Your task to perform on an android device: Open settings Image 0: 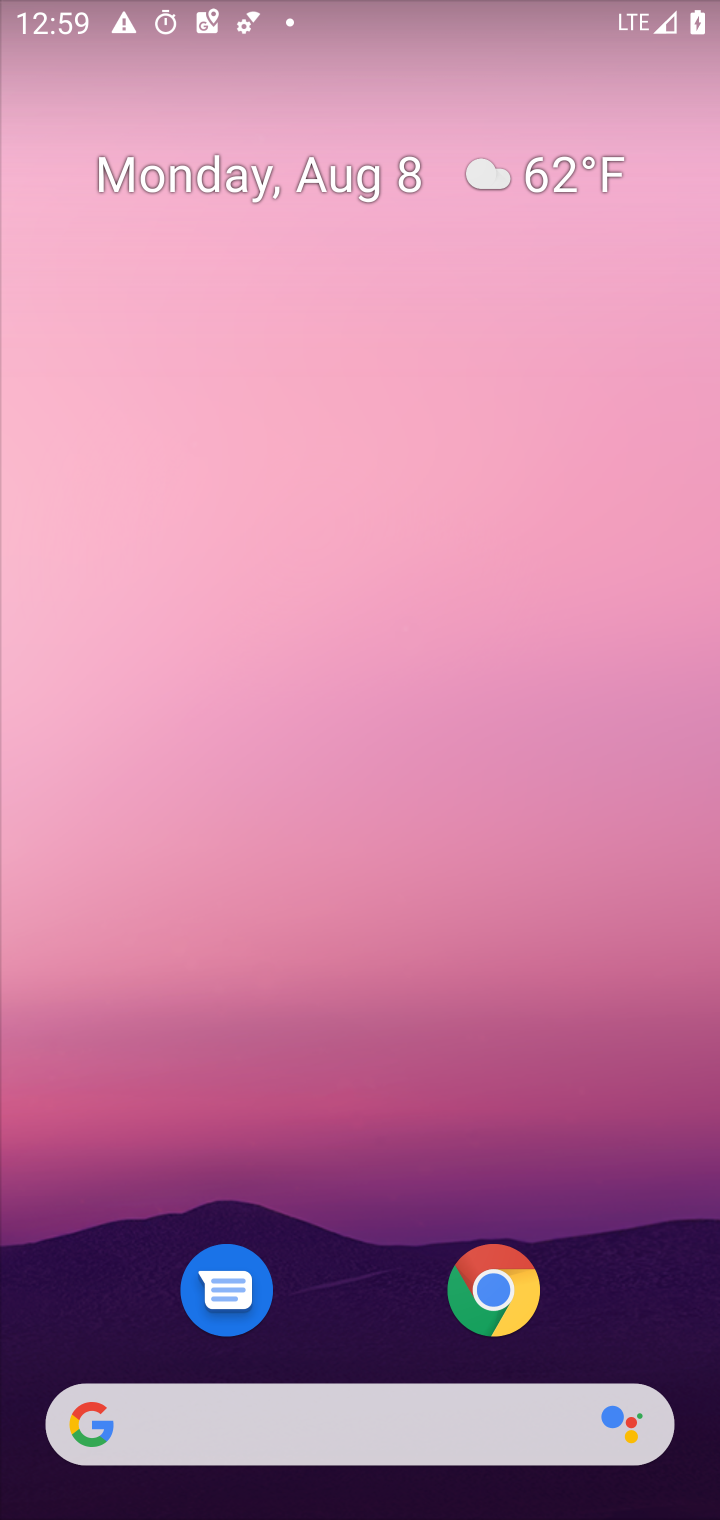
Step 0: drag from (352, 1237) to (392, 921)
Your task to perform on an android device: Open settings Image 1: 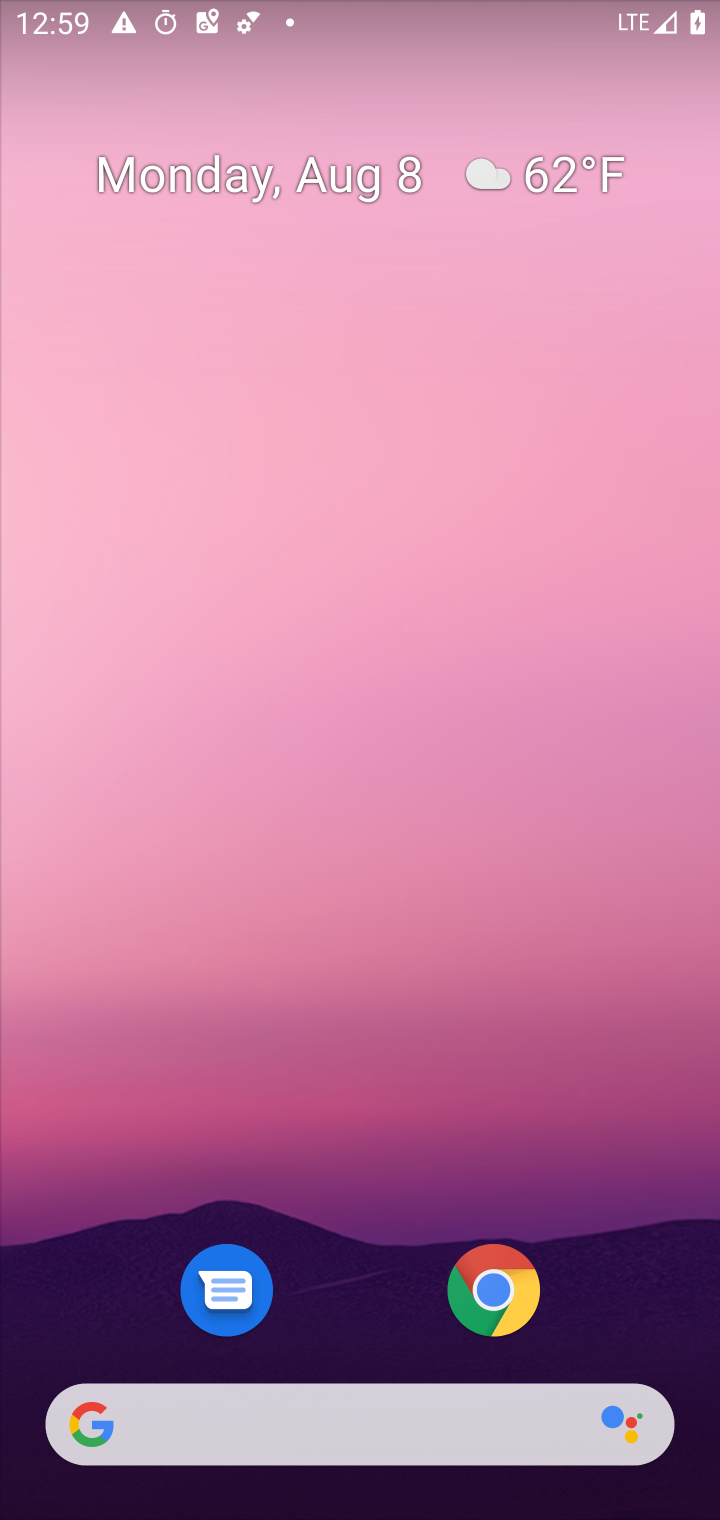
Step 1: drag from (373, 1334) to (393, 851)
Your task to perform on an android device: Open settings Image 2: 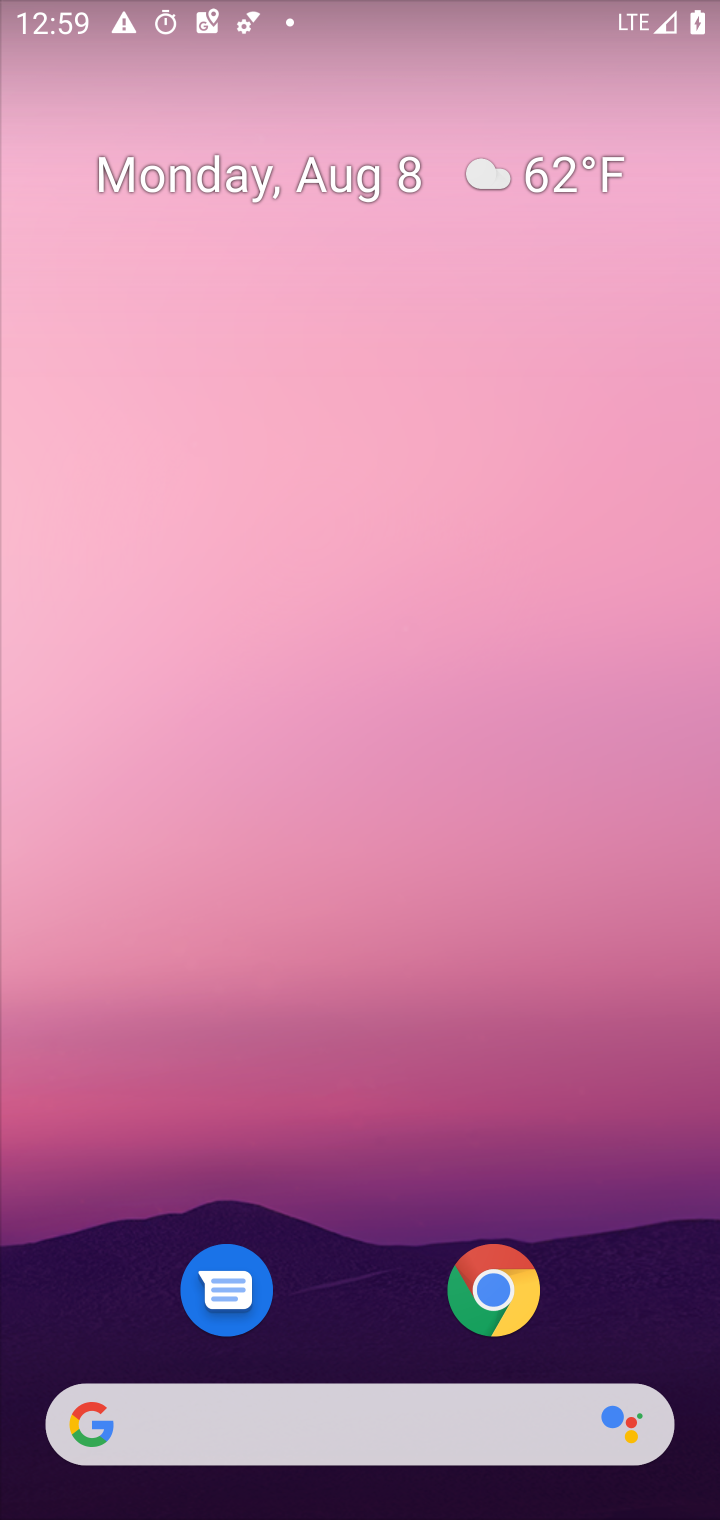
Step 2: drag from (384, 1243) to (384, 688)
Your task to perform on an android device: Open settings Image 3: 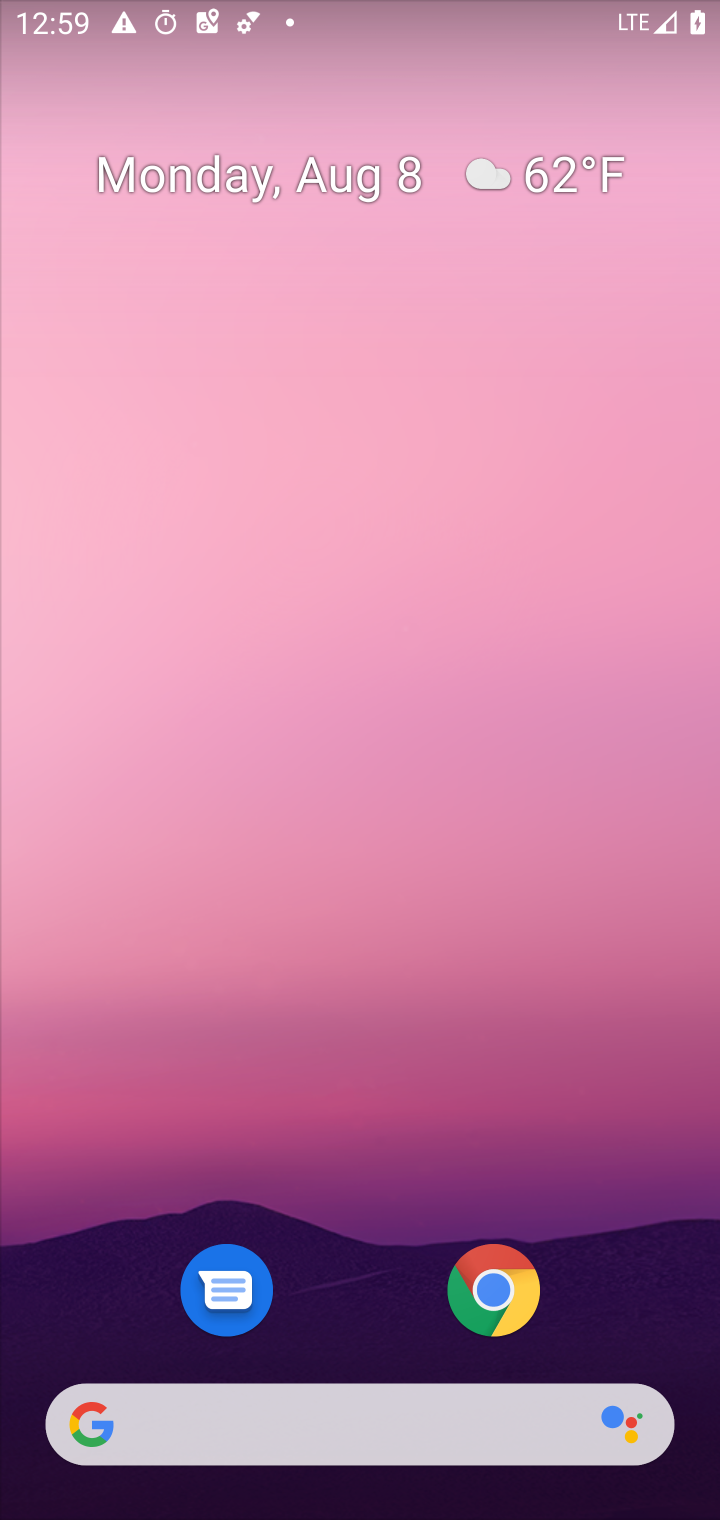
Step 3: drag from (397, 1284) to (415, 265)
Your task to perform on an android device: Open settings Image 4: 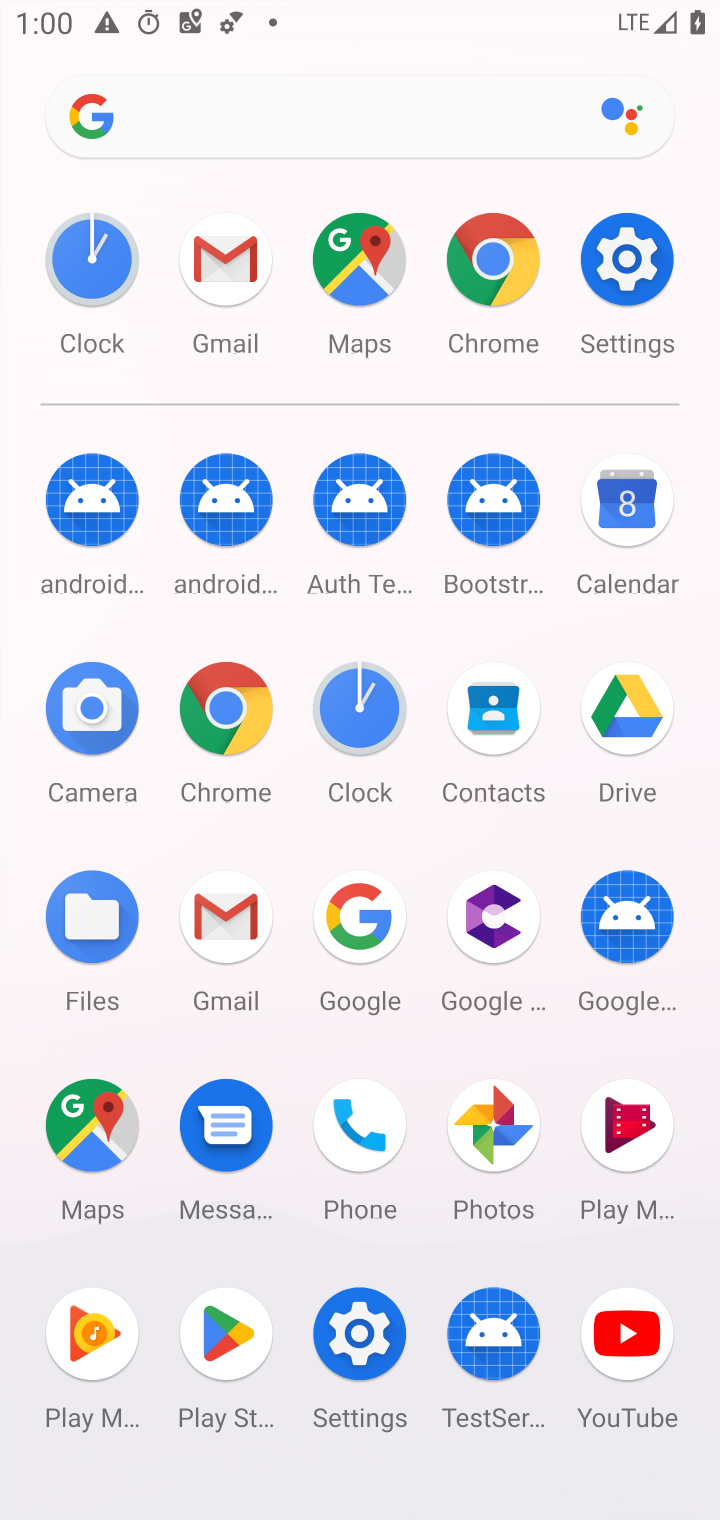
Step 4: click (642, 286)
Your task to perform on an android device: Open settings Image 5: 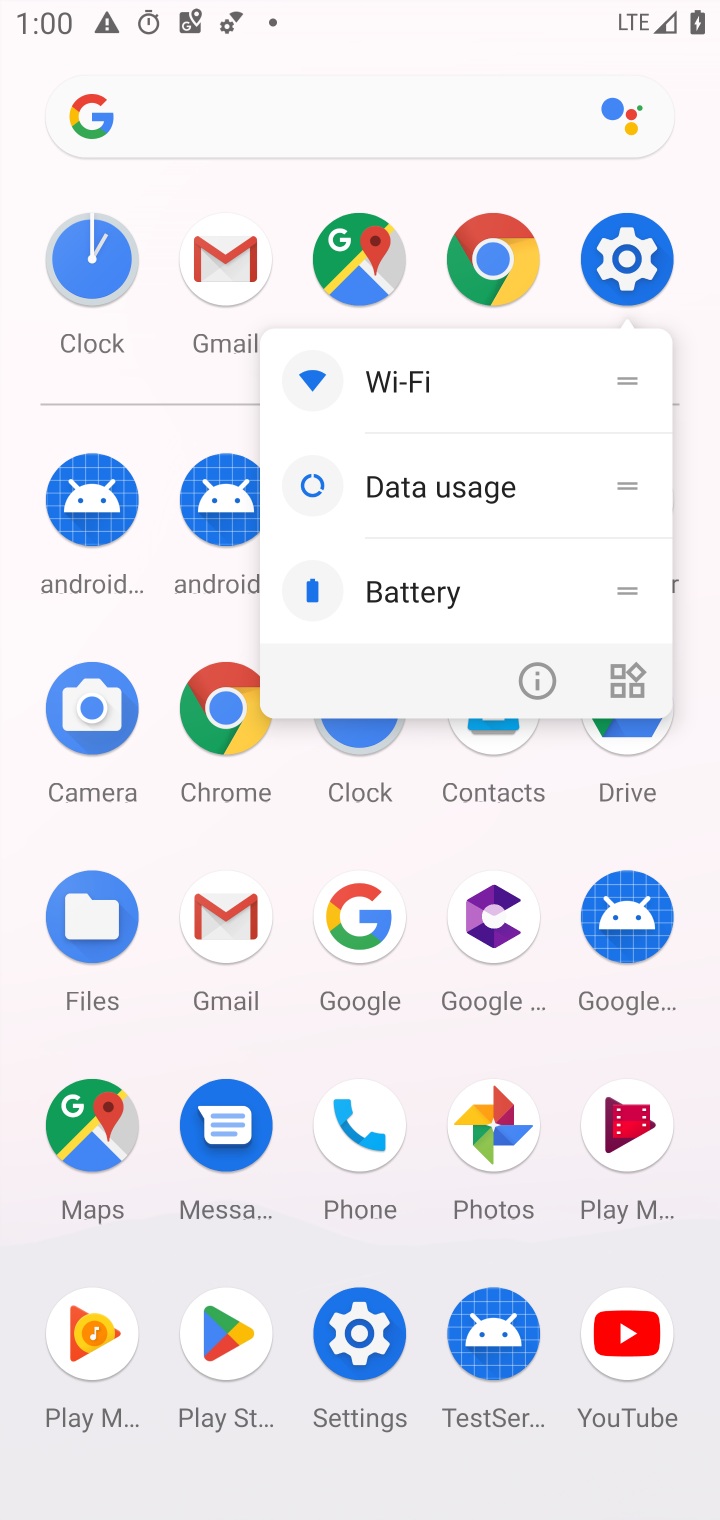
Step 5: click (647, 263)
Your task to perform on an android device: Open settings Image 6: 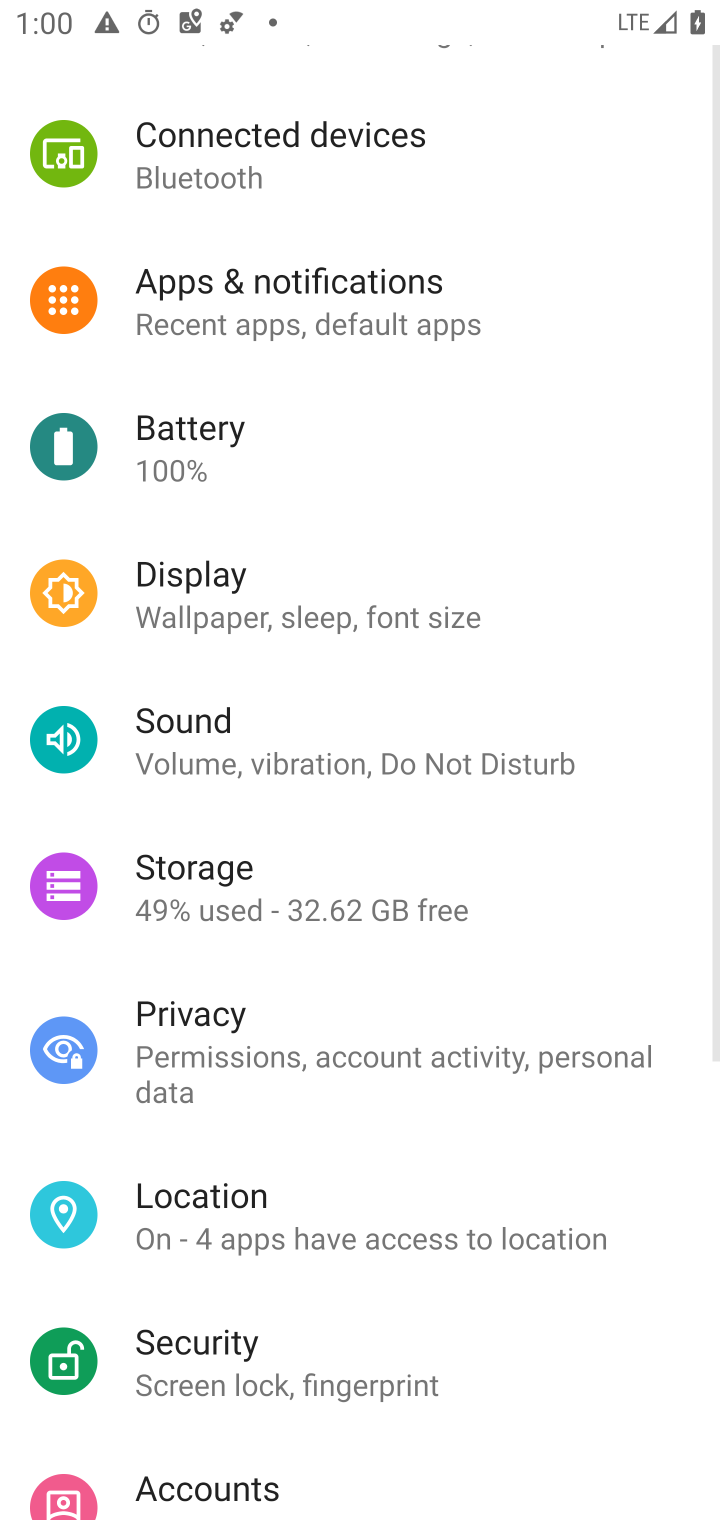
Step 6: task complete